Your task to perform on an android device: install app "LinkedIn" Image 0: 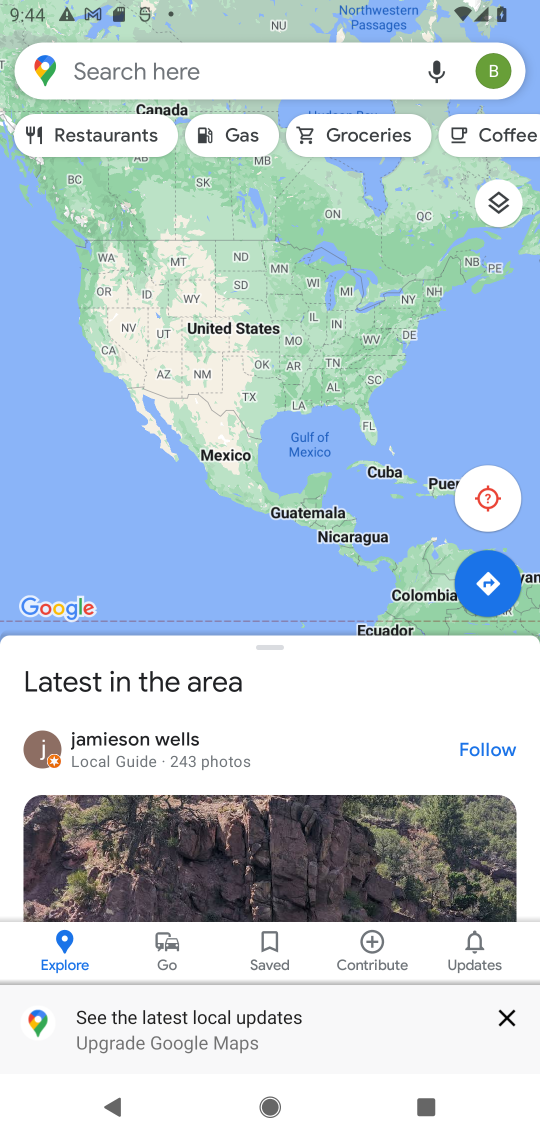
Step 0: press home button
Your task to perform on an android device: install app "LinkedIn" Image 1: 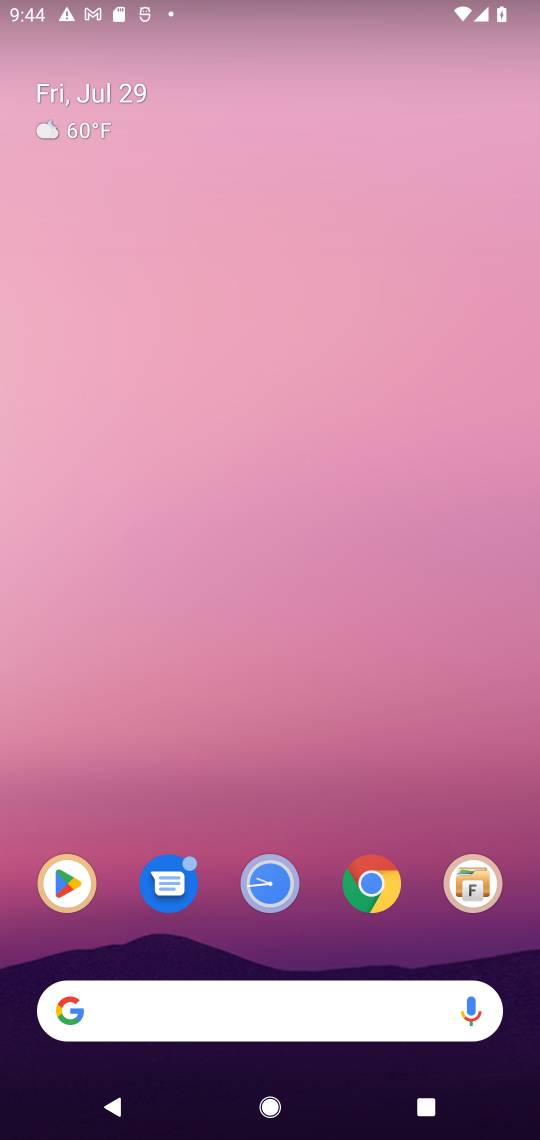
Step 1: click (67, 884)
Your task to perform on an android device: install app "LinkedIn" Image 2: 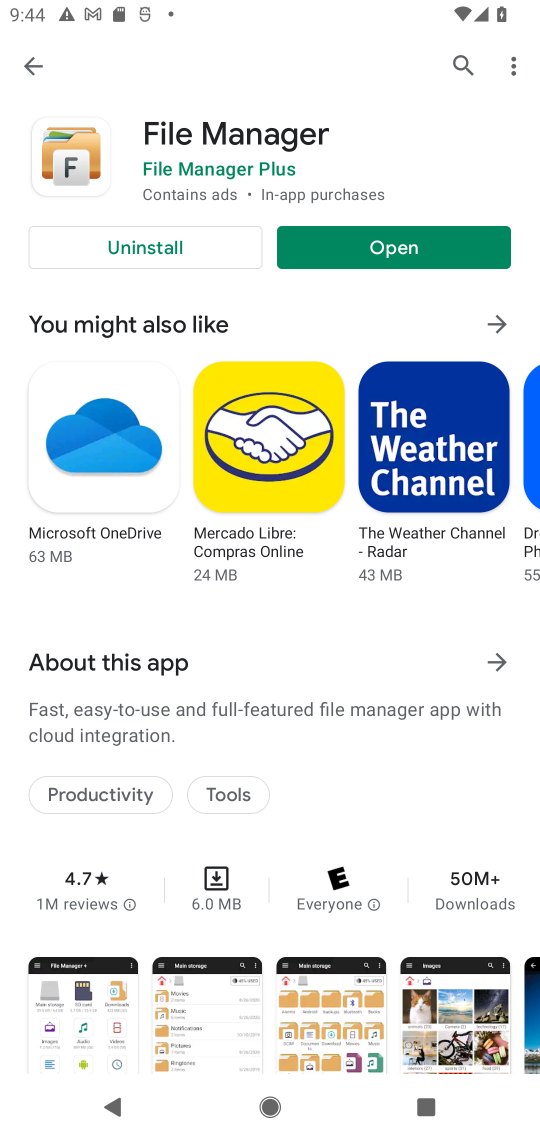
Step 2: click (17, 60)
Your task to perform on an android device: install app "LinkedIn" Image 3: 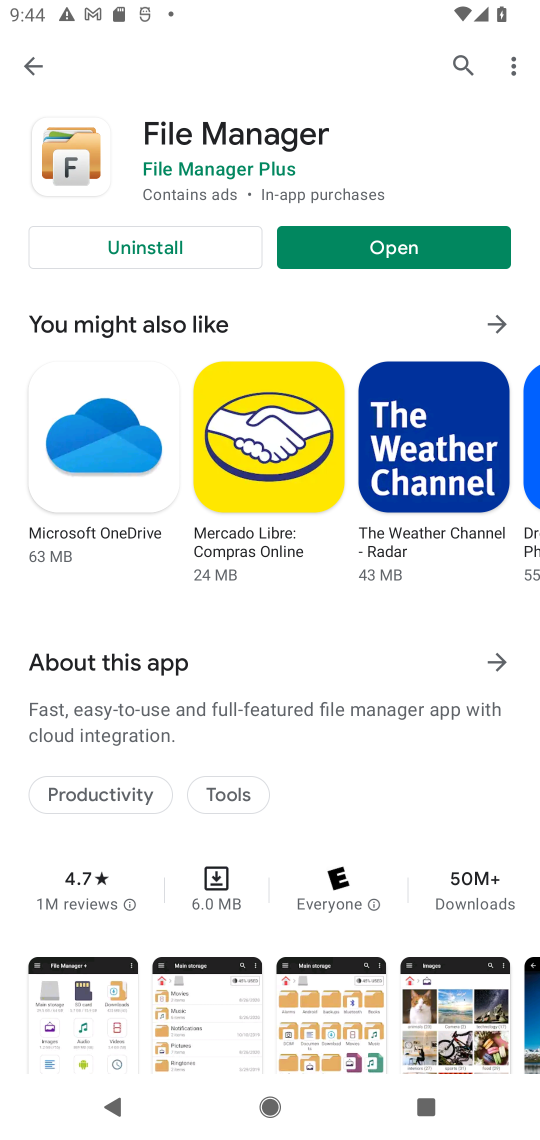
Step 3: click (47, 65)
Your task to perform on an android device: install app "LinkedIn" Image 4: 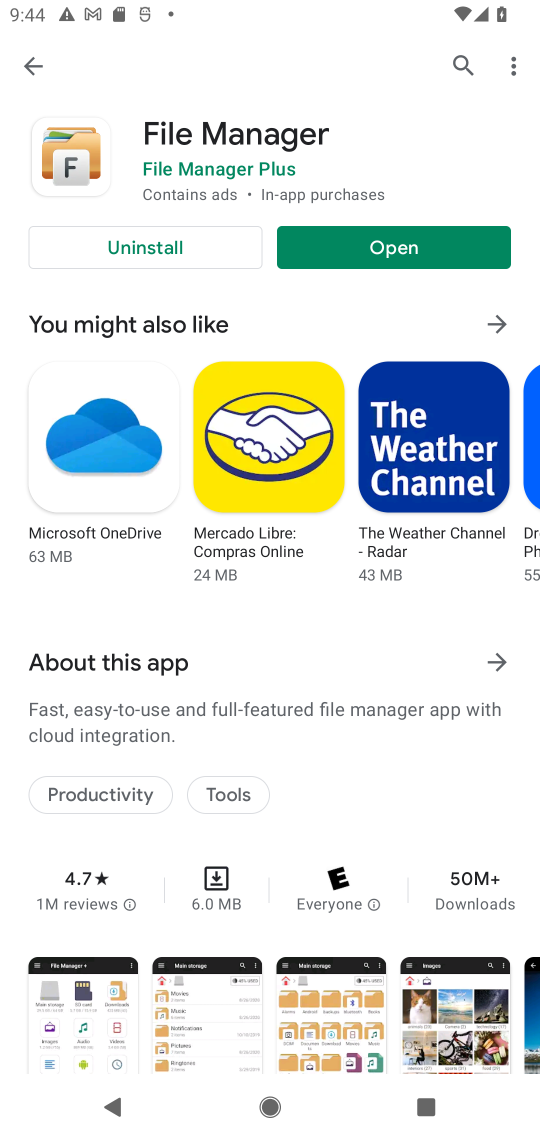
Step 4: click (35, 66)
Your task to perform on an android device: install app "LinkedIn" Image 5: 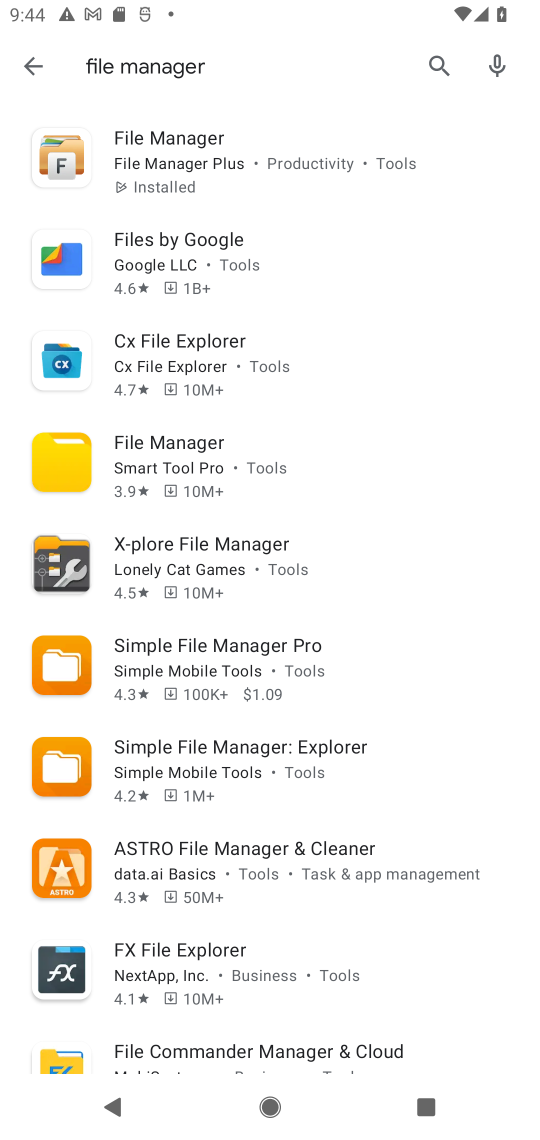
Step 5: click (160, 68)
Your task to perform on an android device: install app "LinkedIn" Image 6: 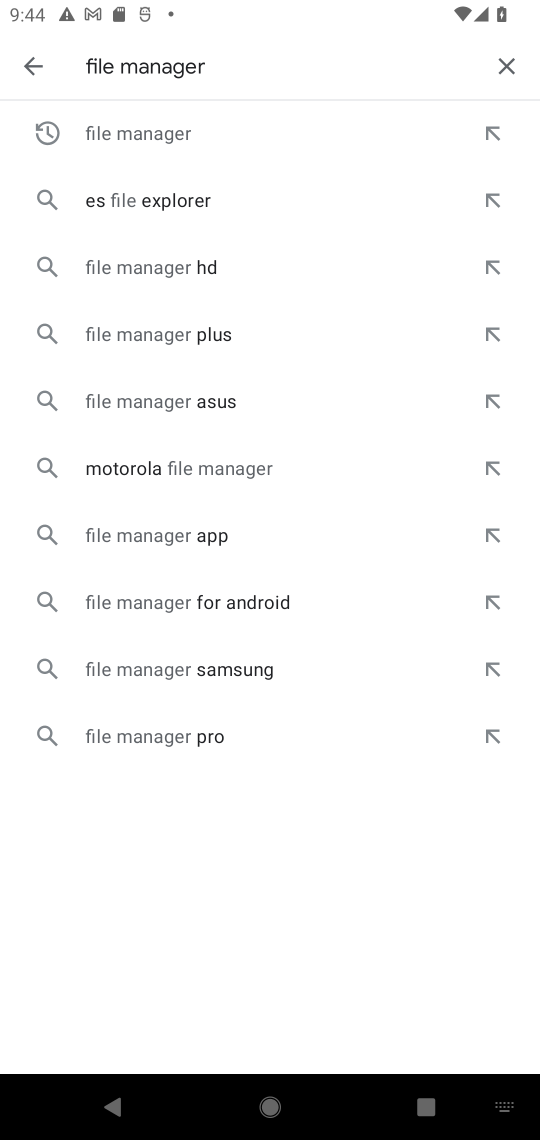
Step 6: click (163, 69)
Your task to perform on an android device: install app "LinkedIn" Image 7: 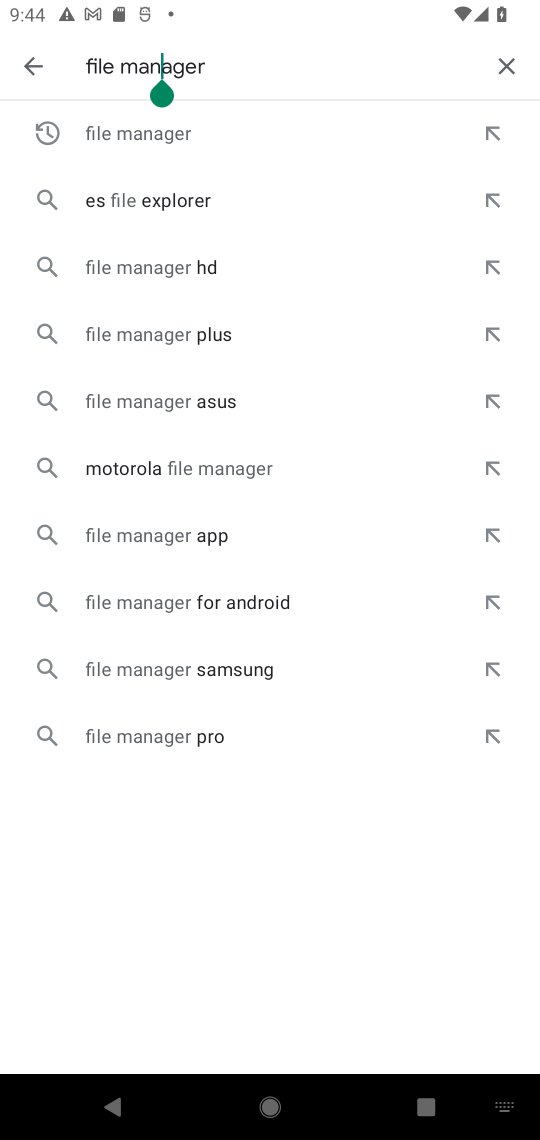
Step 7: click (498, 62)
Your task to perform on an android device: install app "LinkedIn" Image 8: 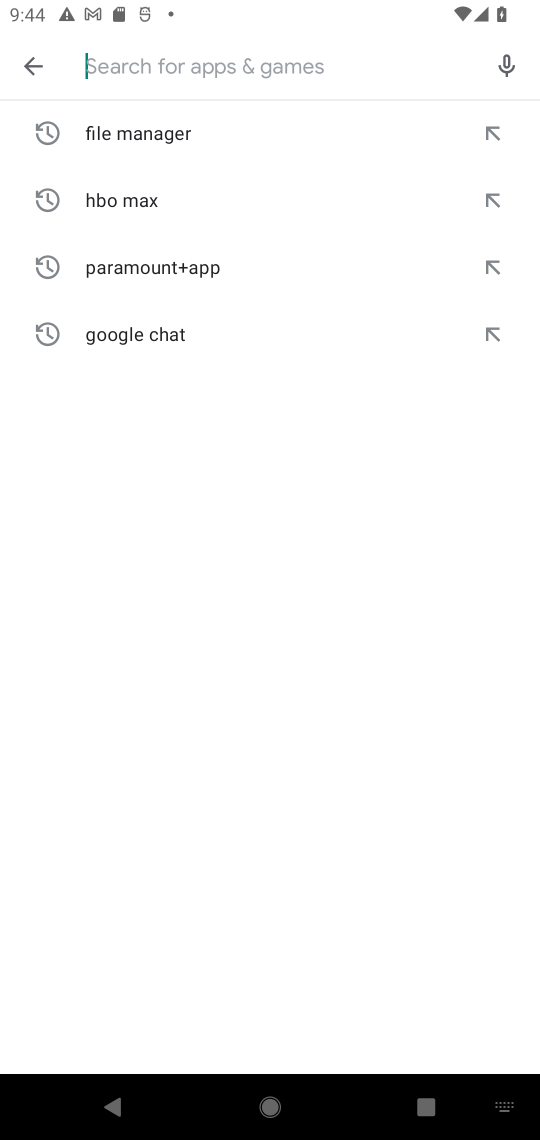
Step 8: type "linkedin"
Your task to perform on an android device: install app "LinkedIn" Image 9: 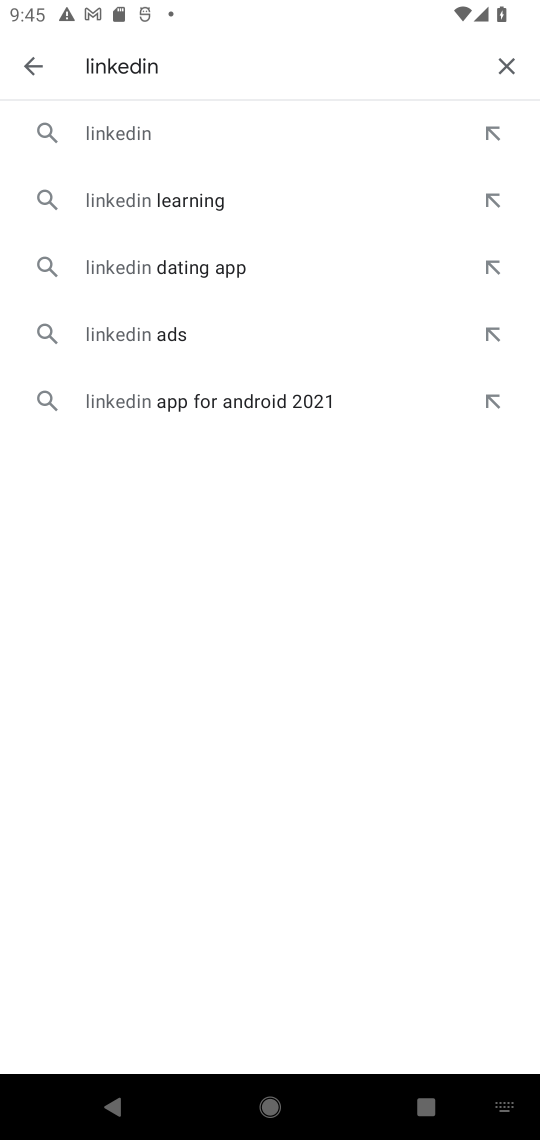
Step 9: click (113, 139)
Your task to perform on an android device: install app "LinkedIn" Image 10: 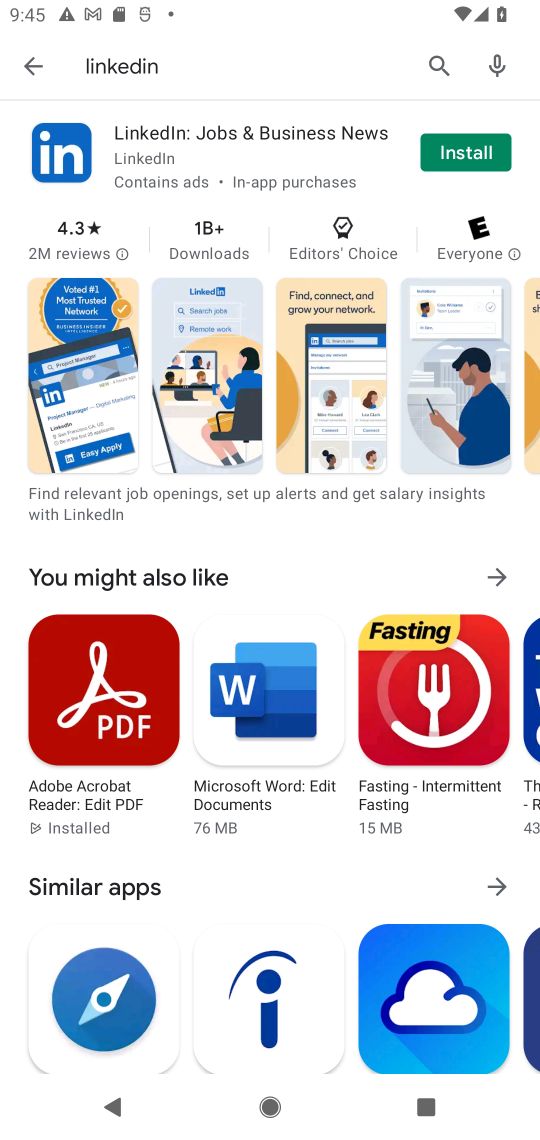
Step 10: click (449, 155)
Your task to perform on an android device: install app "LinkedIn" Image 11: 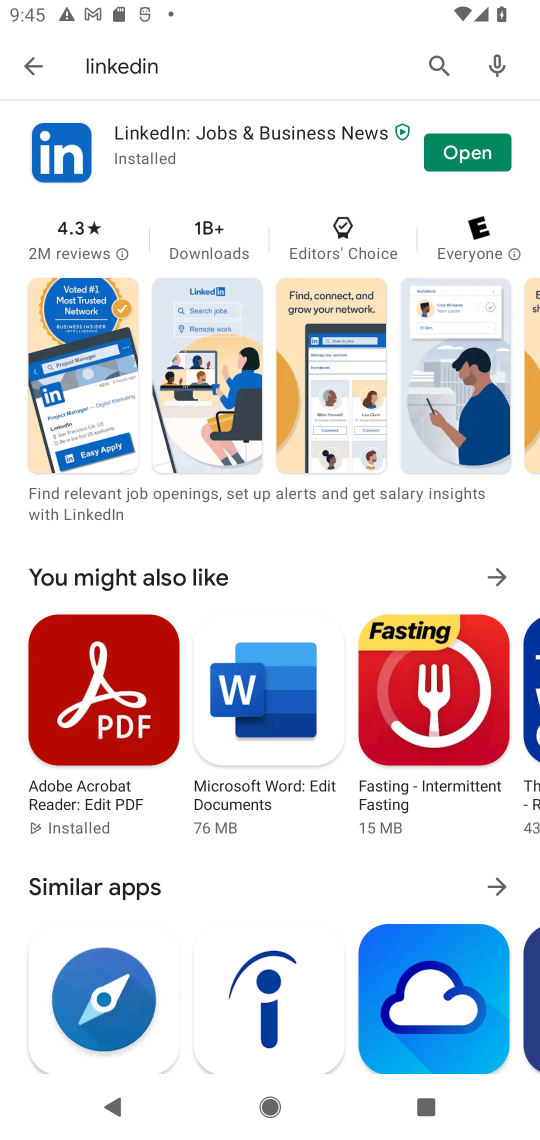
Step 11: task complete